Your task to perform on an android device: turn notification dots on Image 0: 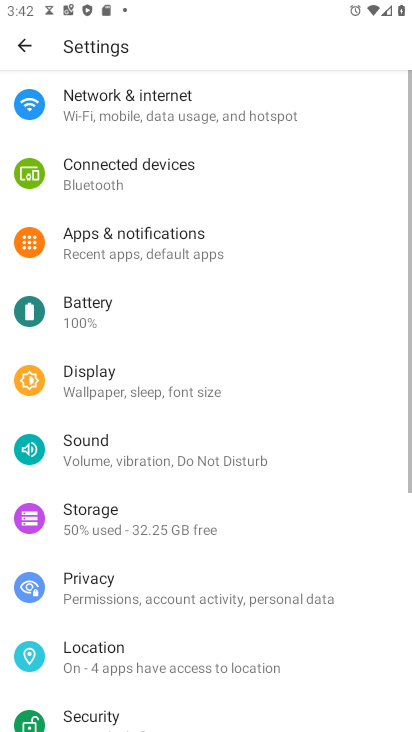
Step 0: click (199, 235)
Your task to perform on an android device: turn notification dots on Image 1: 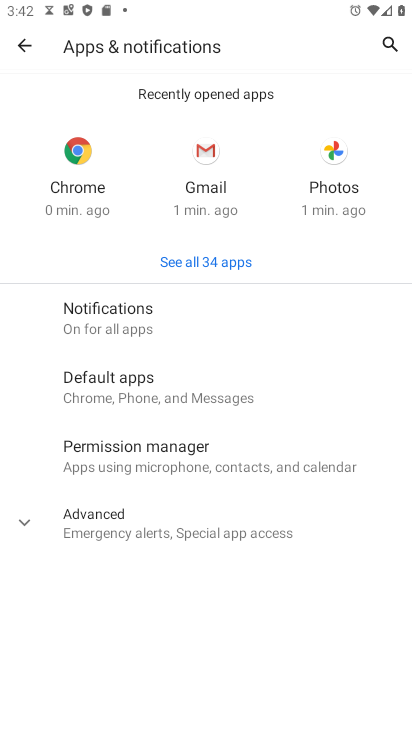
Step 1: click (104, 320)
Your task to perform on an android device: turn notification dots on Image 2: 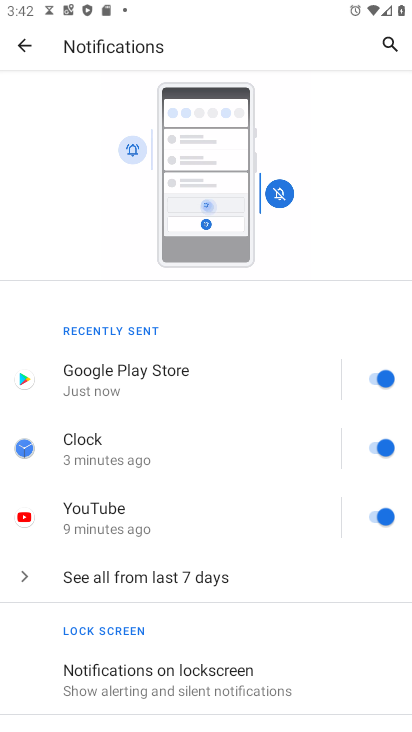
Step 2: drag from (211, 608) to (249, 342)
Your task to perform on an android device: turn notification dots on Image 3: 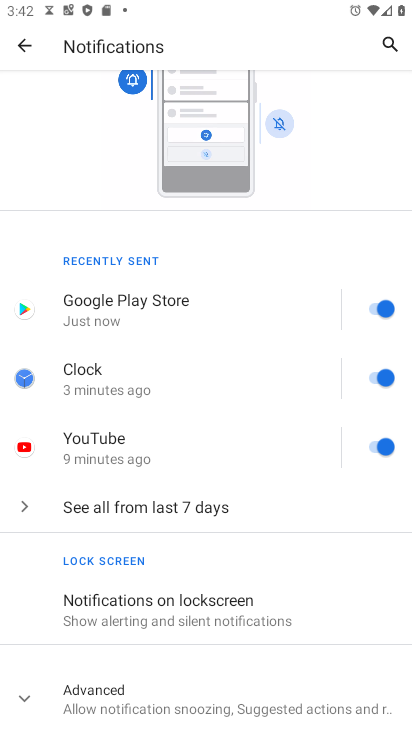
Step 3: click (111, 692)
Your task to perform on an android device: turn notification dots on Image 4: 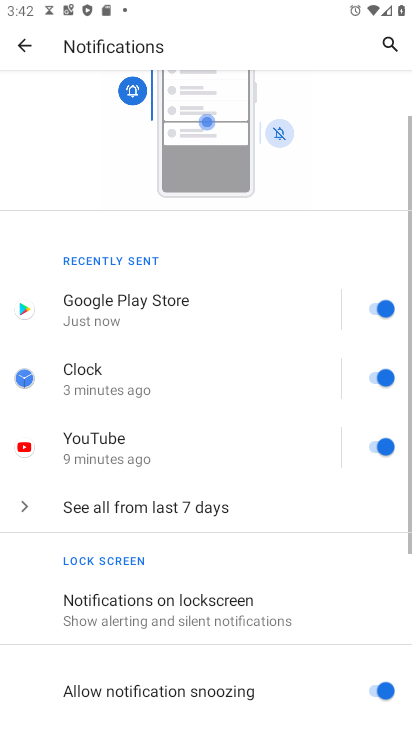
Step 4: drag from (232, 649) to (293, 282)
Your task to perform on an android device: turn notification dots on Image 5: 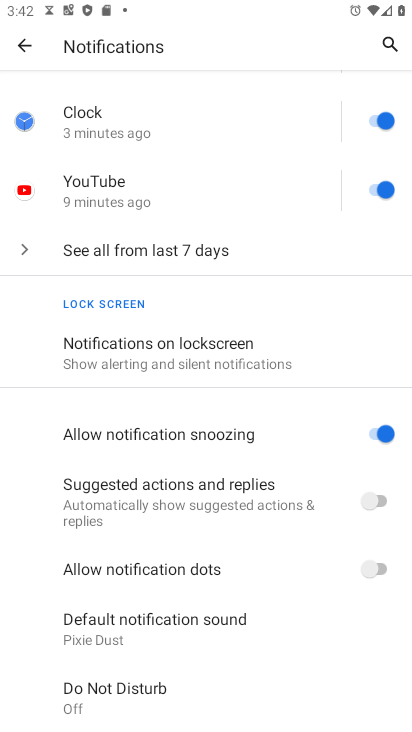
Step 5: click (371, 557)
Your task to perform on an android device: turn notification dots on Image 6: 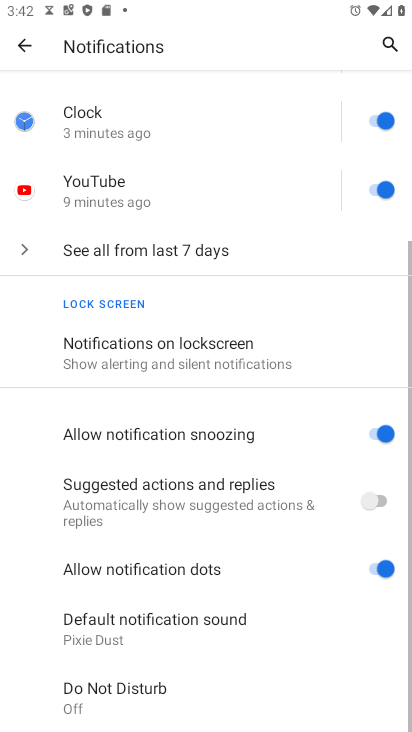
Step 6: task complete